Your task to perform on an android device: Check the weather Image 0: 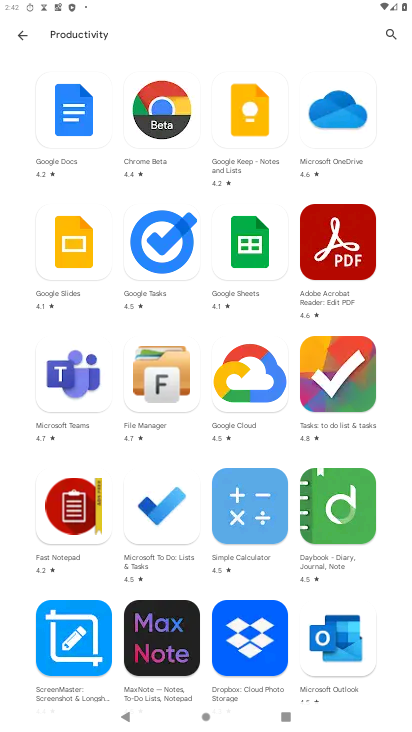
Step 0: press home button
Your task to perform on an android device: Check the weather Image 1: 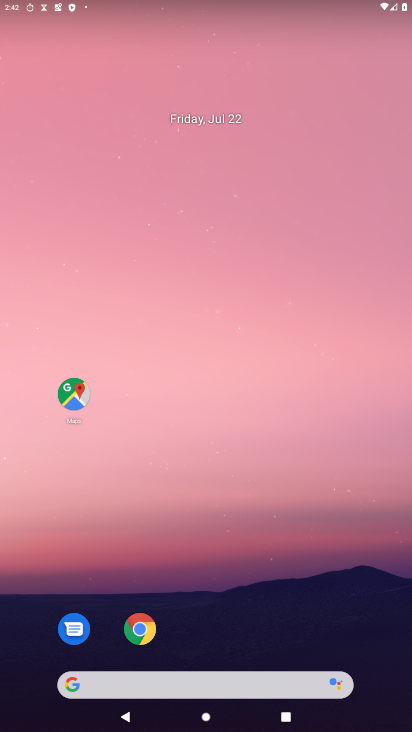
Step 1: drag from (275, 678) to (182, 29)
Your task to perform on an android device: Check the weather Image 2: 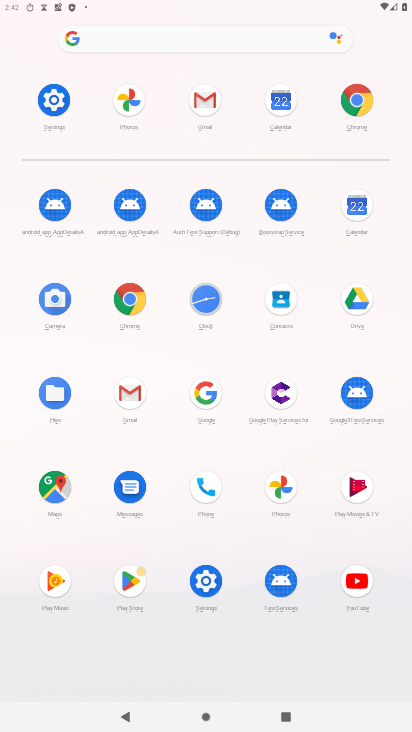
Step 2: click (135, 305)
Your task to perform on an android device: Check the weather Image 3: 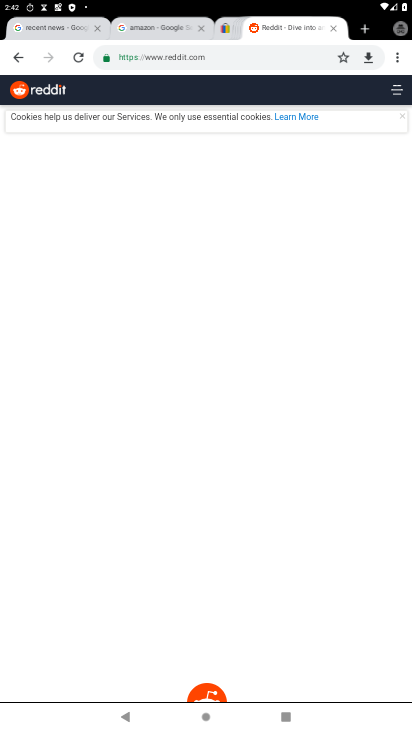
Step 3: click (198, 53)
Your task to perform on an android device: Check the weather Image 4: 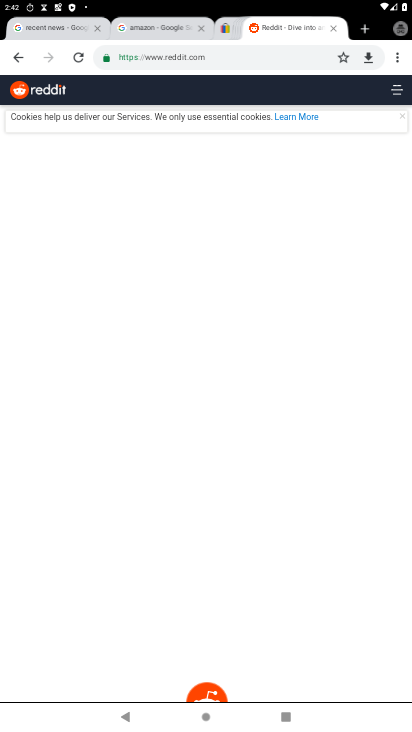
Step 4: click (199, 53)
Your task to perform on an android device: Check the weather Image 5: 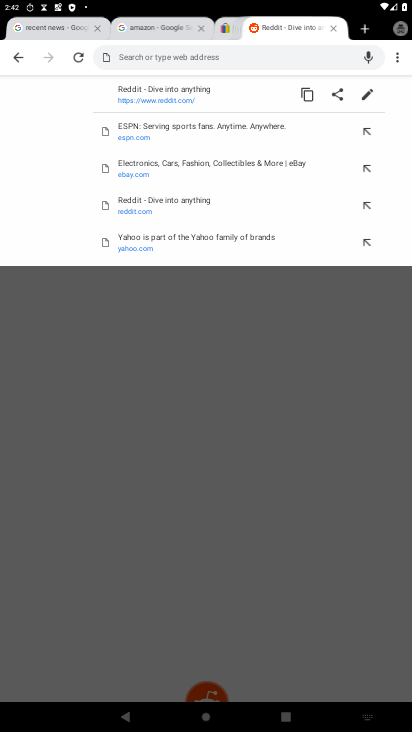
Step 5: type "check the weather"
Your task to perform on an android device: Check the weather Image 6: 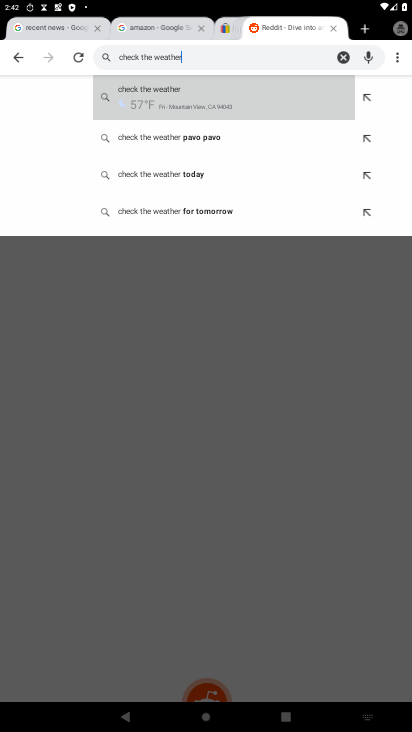
Step 6: click (291, 101)
Your task to perform on an android device: Check the weather Image 7: 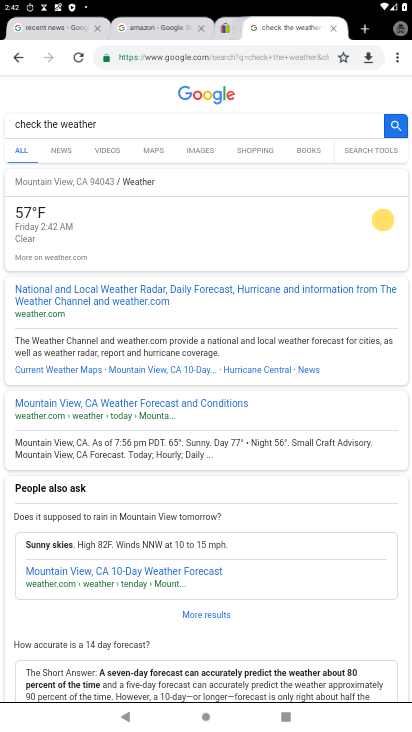
Step 7: task complete